Your task to perform on an android device: Is it going to rain today? Image 0: 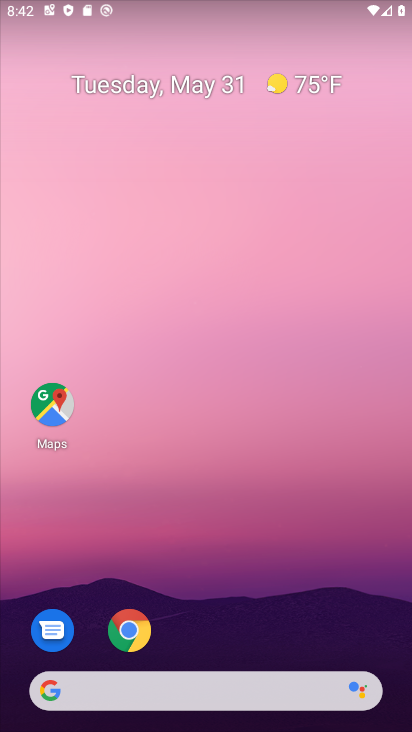
Step 0: drag from (210, 649) to (265, 208)
Your task to perform on an android device: Is it going to rain today? Image 1: 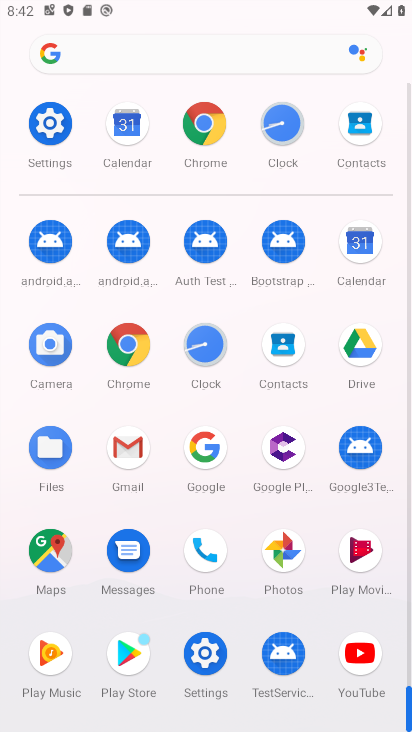
Step 1: click (203, 468)
Your task to perform on an android device: Is it going to rain today? Image 2: 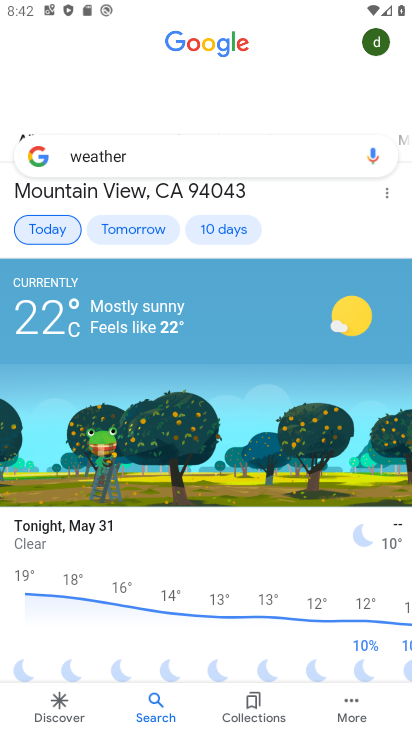
Step 2: task complete